Your task to perform on an android device: Open my contact list Image 0: 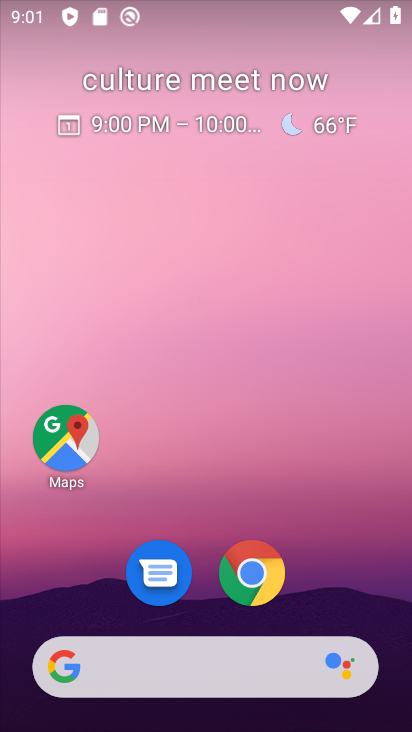
Step 0: drag from (199, 578) to (244, 159)
Your task to perform on an android device: Open my contact list Image 1: 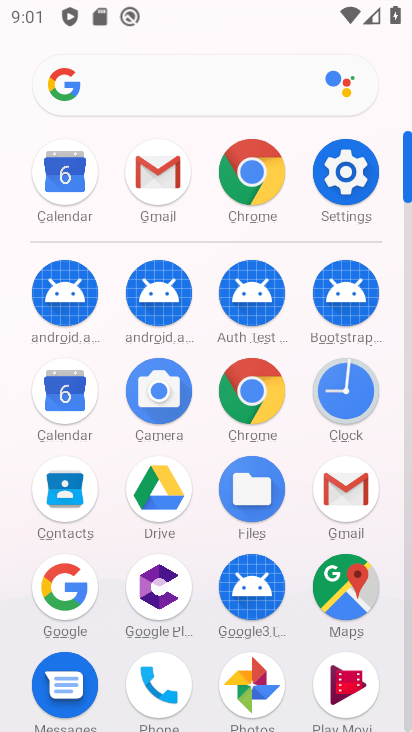
Step 1: click (69, 497)
Your task to perform on an android device: Open my contact list Image 2: 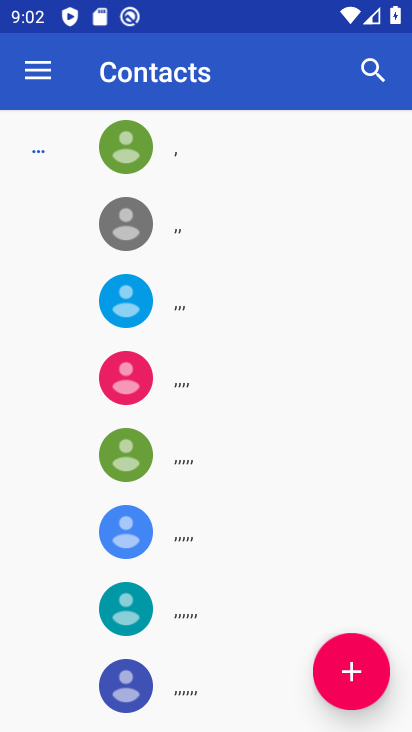
Step 2: task complete